Your task to perform on an android device: turn on the 12-hour format for clock Image 0: 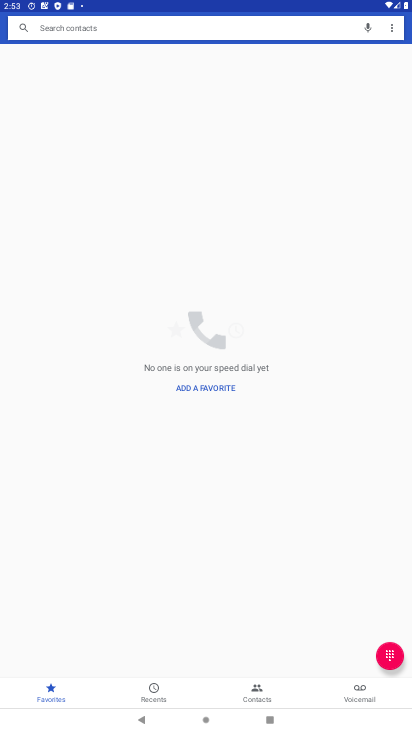
Step 0: press home button
Your task to perform on an android device: turn on the 12-hour format for clock Image 1: 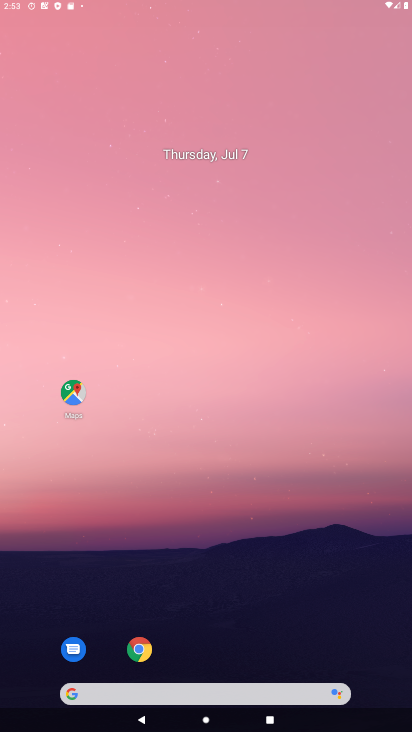
Step 1: drag from (335, 685) to (362, 7)
Your task to perform on an android device: turn on the 12-hour format for clock Image 2: 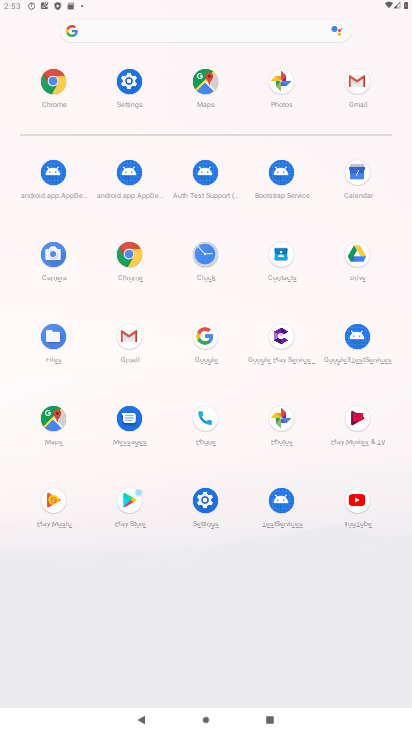
Step 2: click (212, 252)
Your task to perform on an android device: turn on the 12-hour format for clock Image 3: 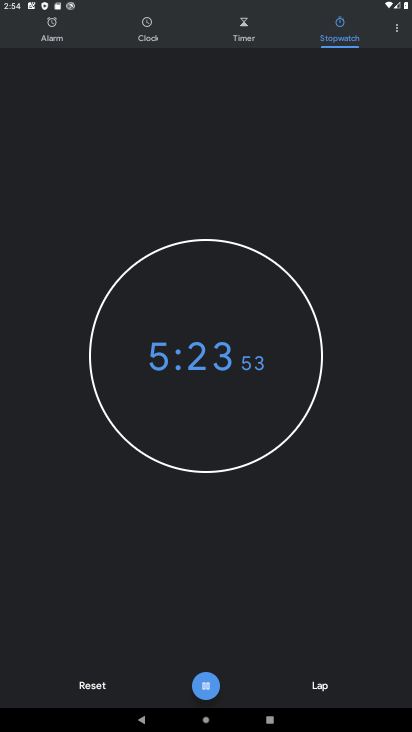
Step 3: click (403, 28)
Your task to perform on an android device: turn on the 12-hour format for clock Image 4: 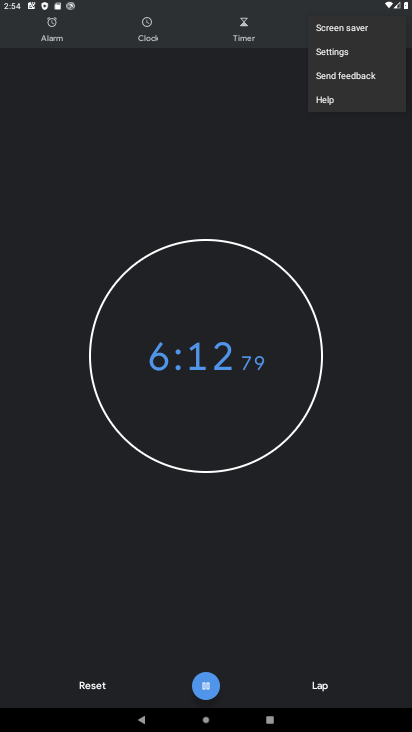
Step 4: click (350, 56)
Your task to perform on an android device: turn on the 12-hour format for clock Image 5: 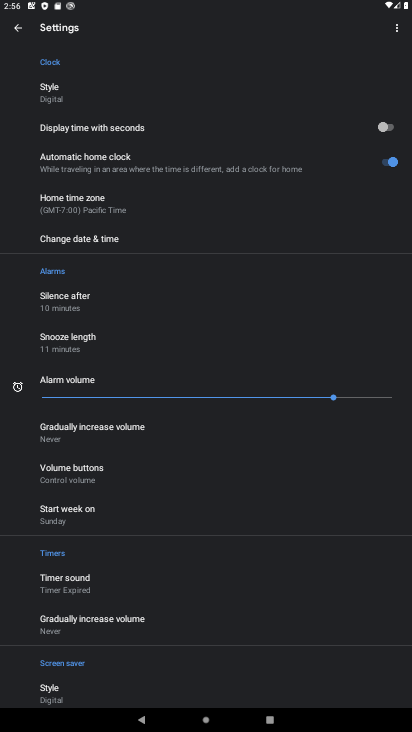
Step 5: click (97, 243)
Your task to perform on an android device: turn on the 12-hour format for clock Image 6: 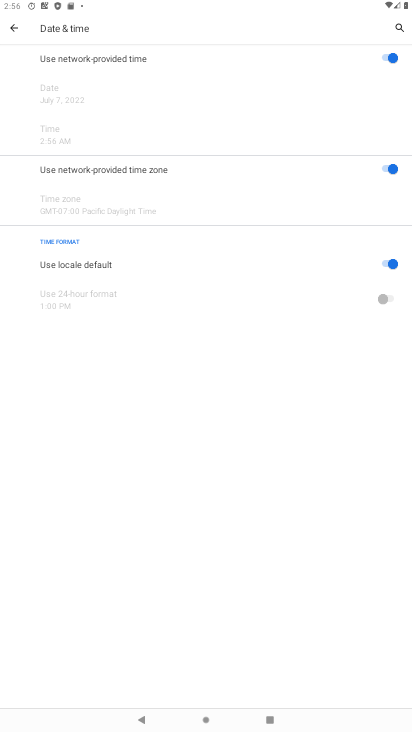
Step 6: click (384, 263)
Your task to perform on an android device: turn on the 12-hour format for clock Image 7: 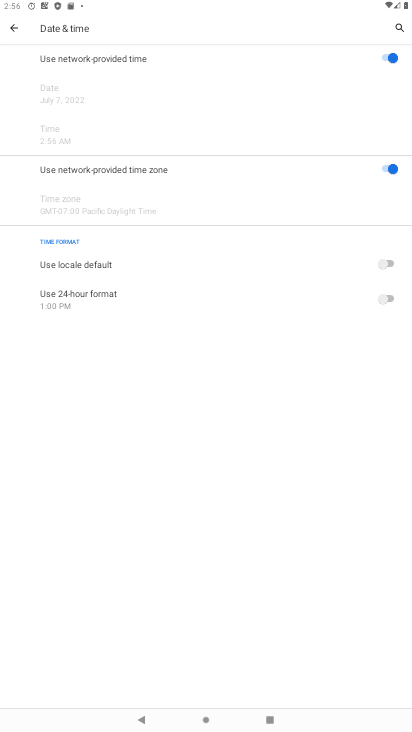
Step 7: task complete